Your task to perform on an android device: check data usage Image 0: 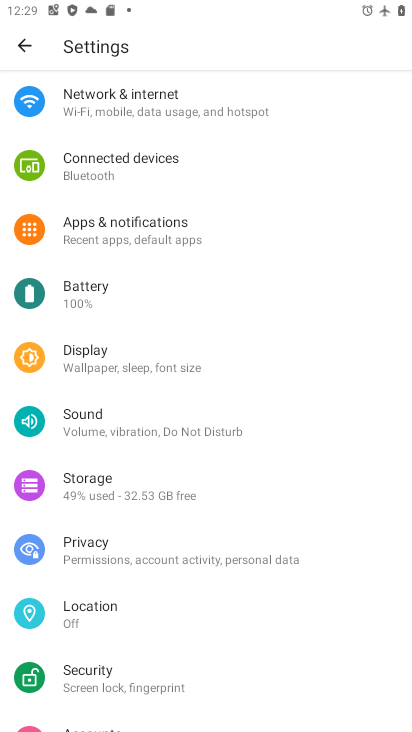
Step 0: press home button
Your task to perform on an android device: check data usage Image 1: 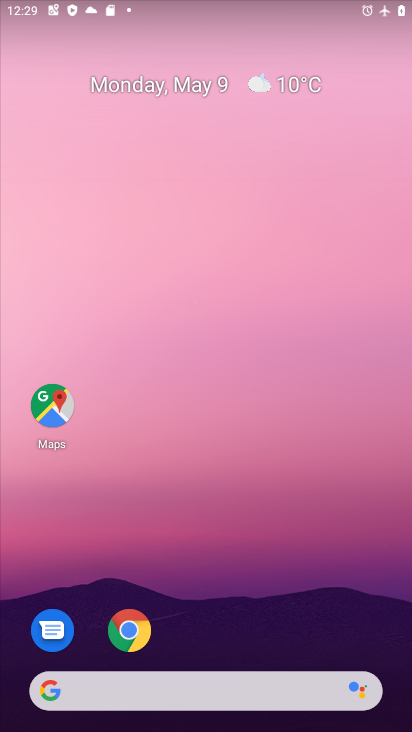
Step 1: drag from (291, 631) to (336, 111)
Your task to perform on an android device: check data usage Image 2: 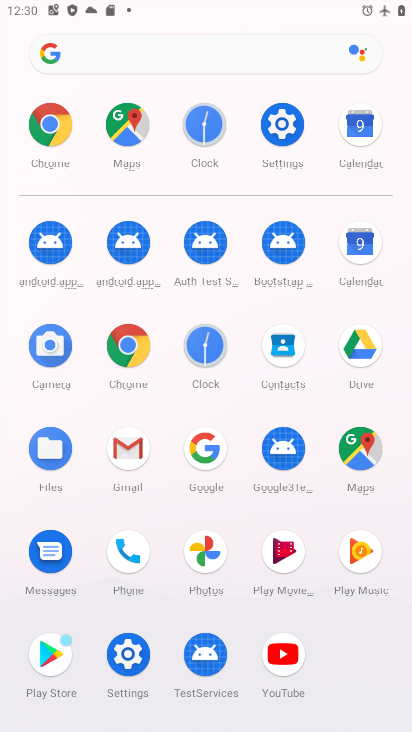
Step 2: click (126, 649)
Your task to perform on an android device: check data usage Image 3: 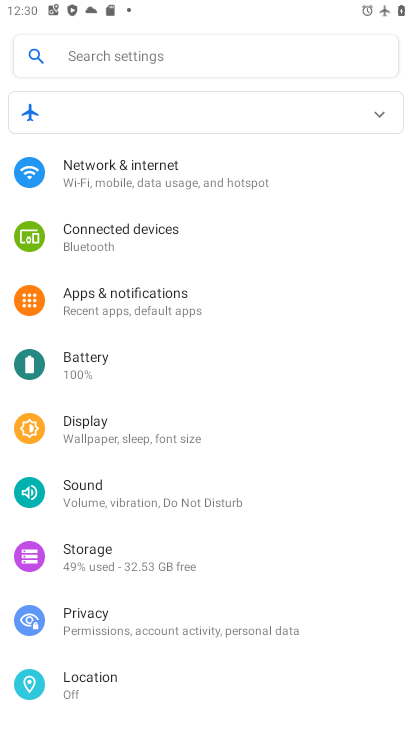
Step 3: click (190, 173)
Your task to perform on an android device: check data usage Image 4: 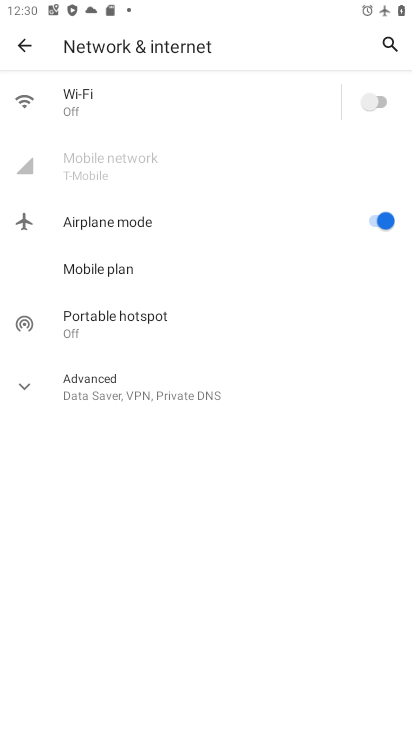
Step 4: task complete